Your task to perform on an android device: change the upload size in google photos Image 0: 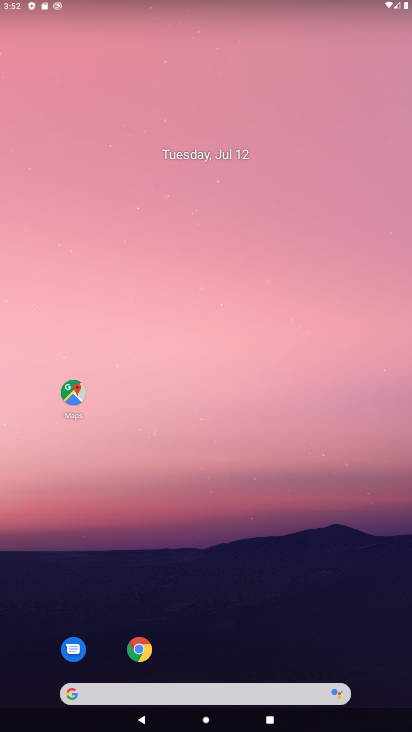
Step 0: press home button
Your task to perform on an android device: change the upload size in google photos Image 1: 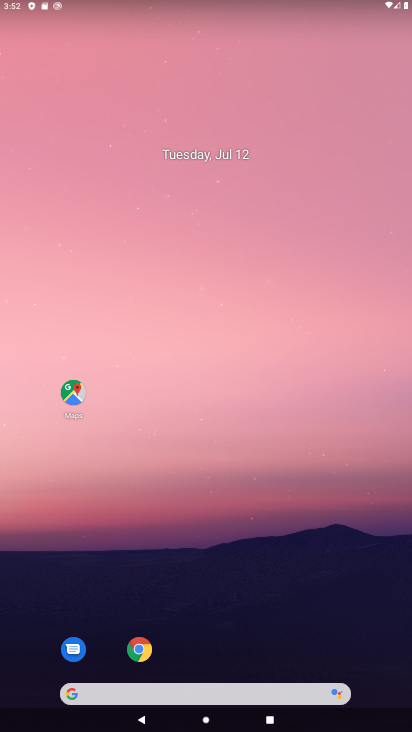
Step 1: drag from (212, 667) to (193, 69)
Your task to perform on an android device: change the upload size in google photos Image 2: 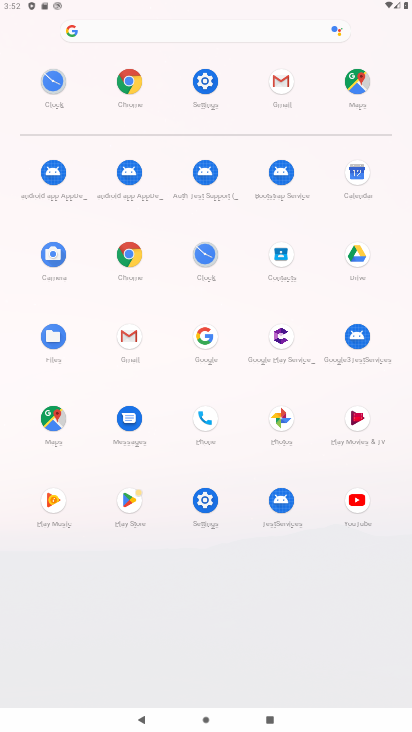
Step 2: click (284, 415)
Your task to perform on an android device: change the upload size in google photos Image 3: 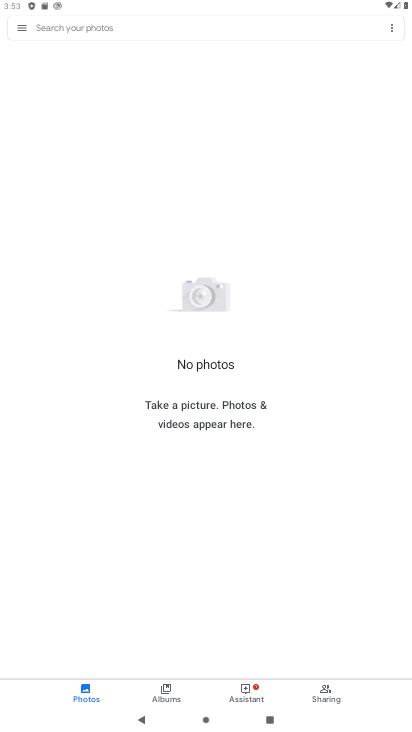
Step 3: click (16, 27)
Your task to perform on an android device: change the upload size in google photos Image 4: 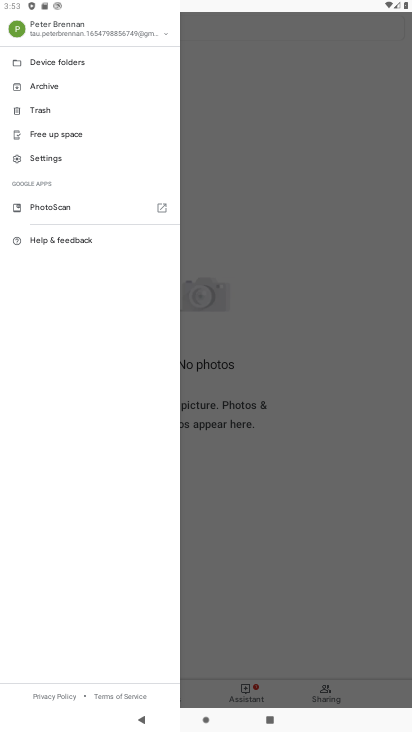
Step 4: click (72, 154)
Your task to perform on an android device: change the upload size in google photos Image 5: 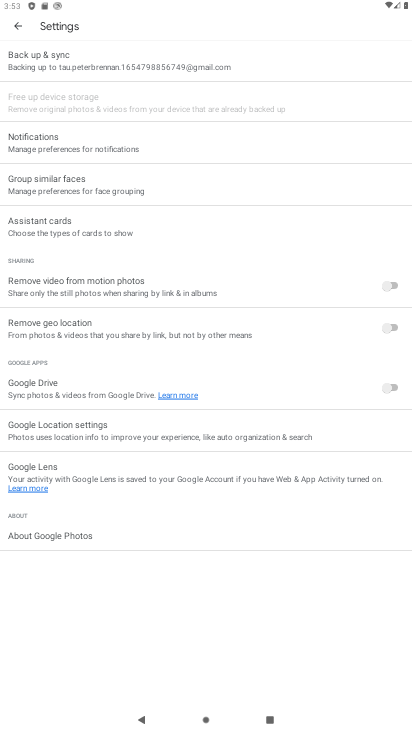
Step 5: click (53, 68)
Your task to perform on an android device: change the upload size in google photos Image 6: 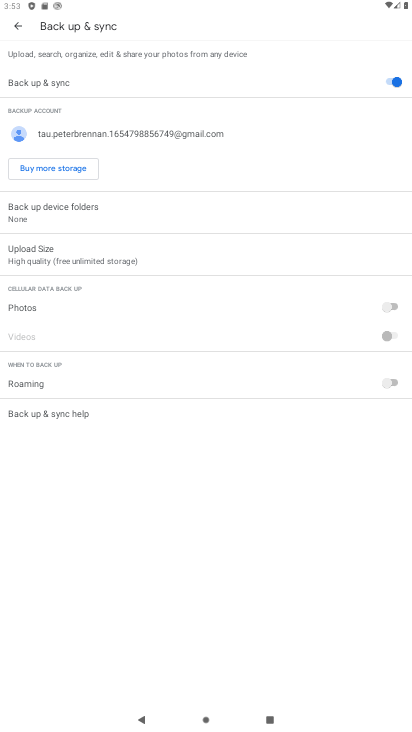
Step 6: click (75, 254)
Your task to perform on an android device: change the upload size in google photos Image 7: 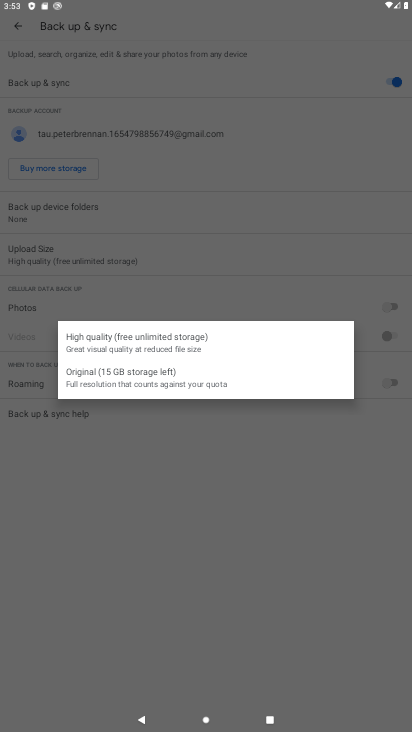
Step 7: click (168, 338)
Your task to perform on an android device: change the upload size in google photos Image 8: 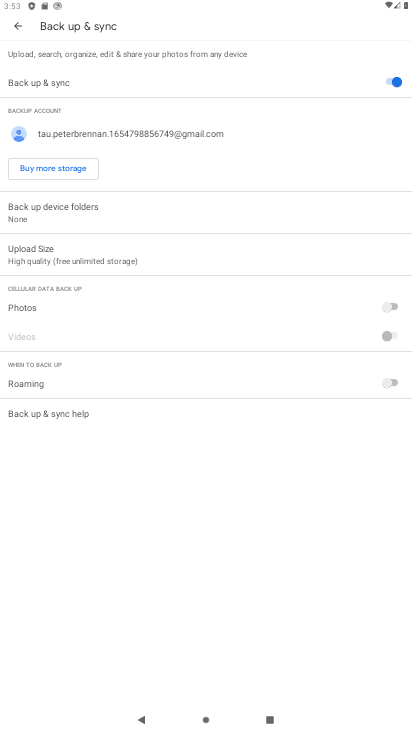
Step 8: task complete